Your task to perform on an android device: Show me recent news Image 0: 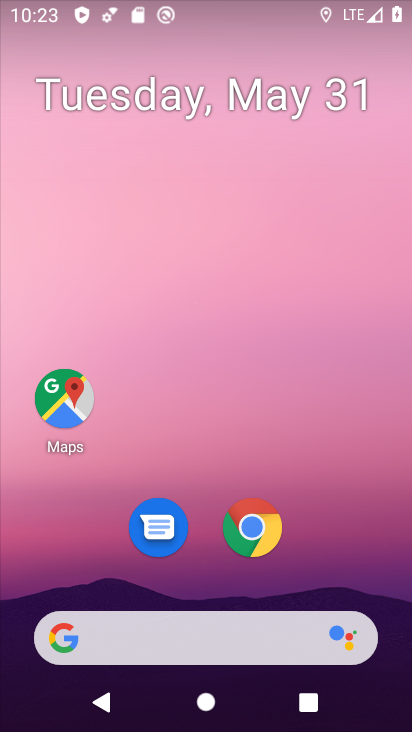
Step 0: click (259, 627)
Your task to perform on an android device: Show me recent news Image 1: 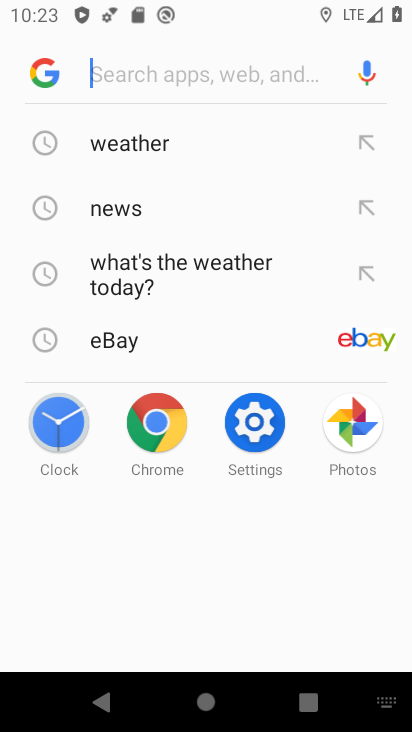
Step 1: type "recent news"
Your task to perform on an android device: Show me recent news Image 2: 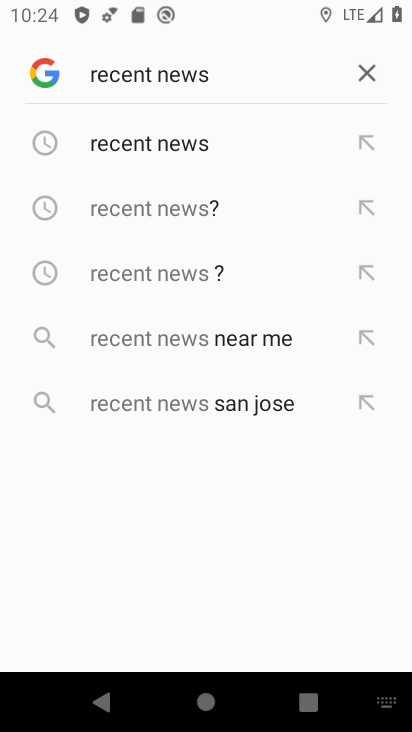
Step 2: click (147, 146)
Your task to perform on an android device: Show me recent news Image 3: 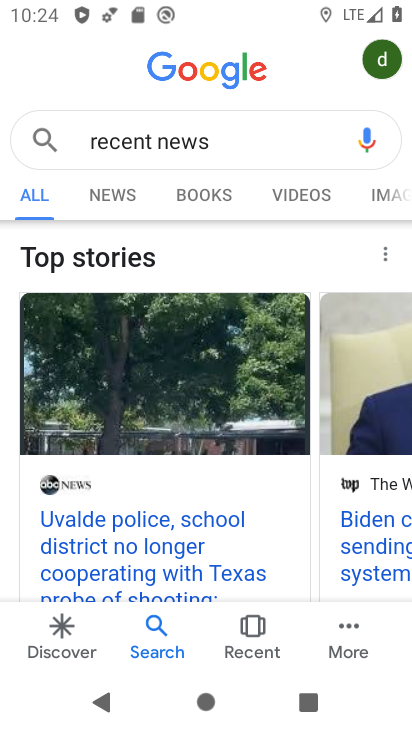
Step 3: task complete